Your task to perform on an android device: find snoozed emails in the gmail app Image 0: 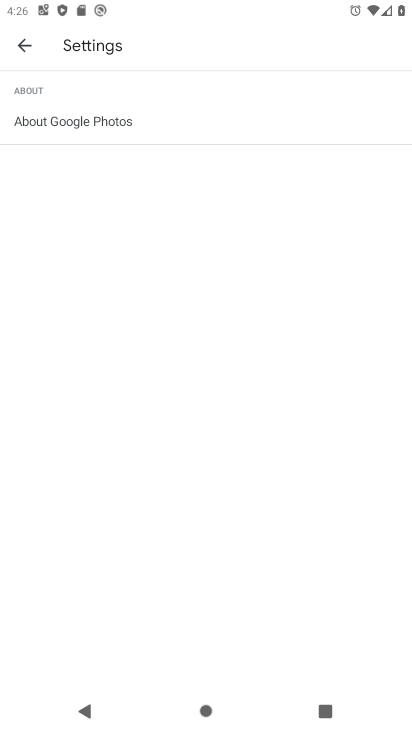
Step 0: press home button
Your task to perform on an android device: find snoozed emails in the gmail app Image 1: 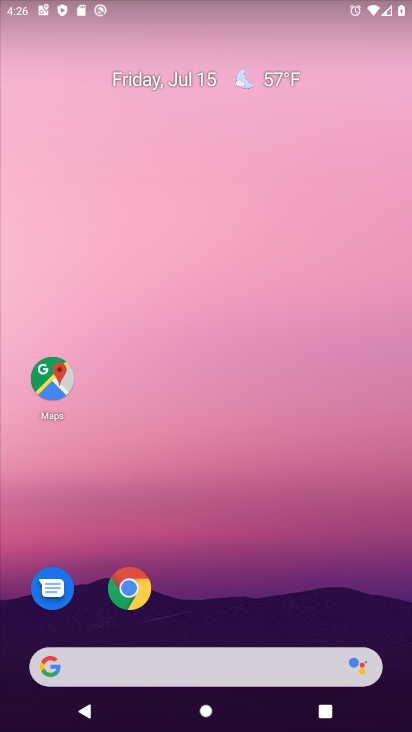
Step 1: drag from (209, 665) to (263, 110)
Your task to perform on an android device: find snoozed emails in the gmail app Image 2: 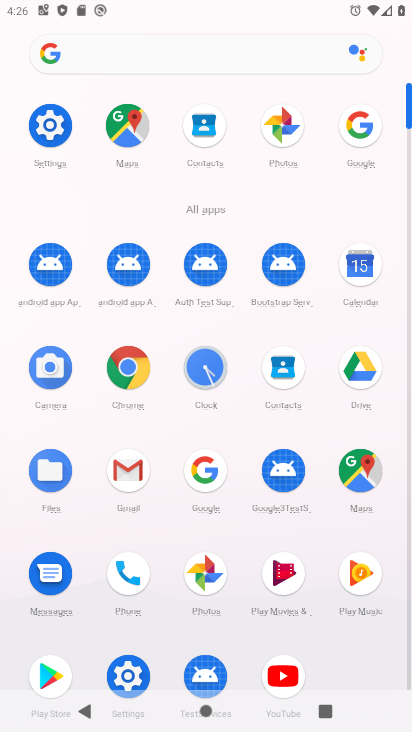
Step 2: click (129, 469)
Your task to perform on an android device: find snoozed emails in the gmail app Image 3: 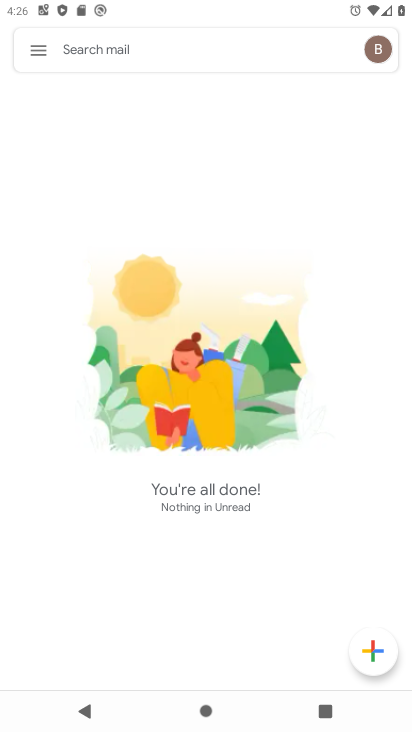
Step 3: click (40, 51)
Your task to perform on an android device: find snoozed emails in the gmail app Image 4: 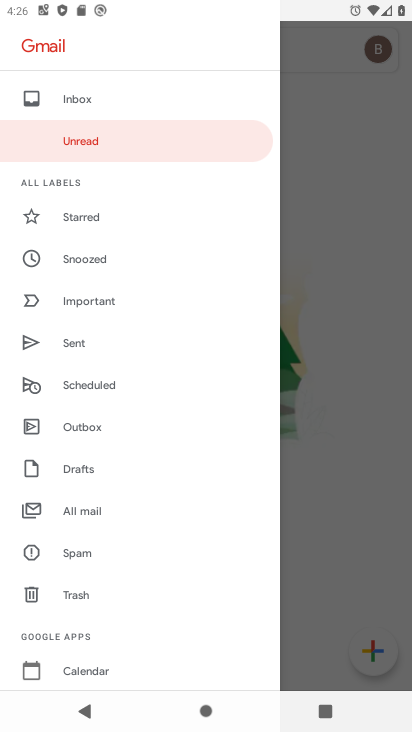
Step 4: click (72, 96)
Your task to perform on an android device: find snoozed emails in the gmail app Image 5: 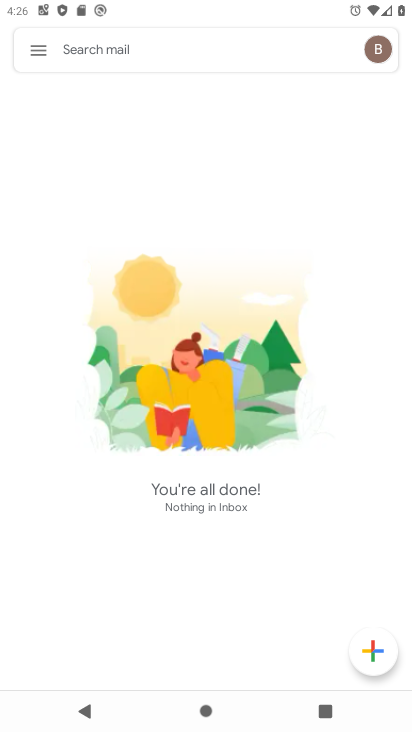
Step 5: click (38, 54)
Your task to perform on an android device: find snoozed emails in the gmail app Image 6: 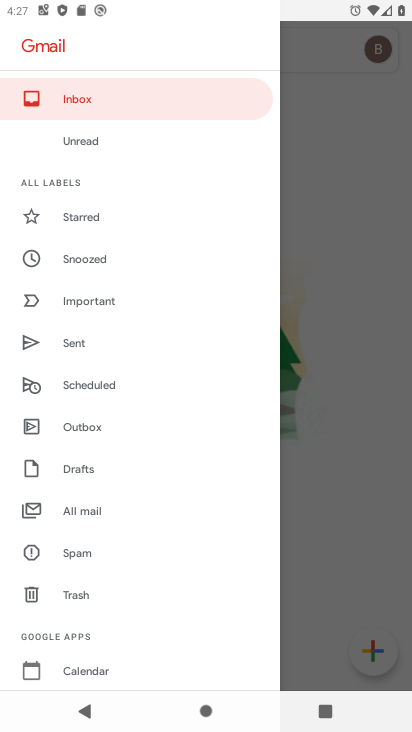
Step 6: click (89, 257)
Your task to perform on an android device: find snoozed emails in the gmail app Image 7: 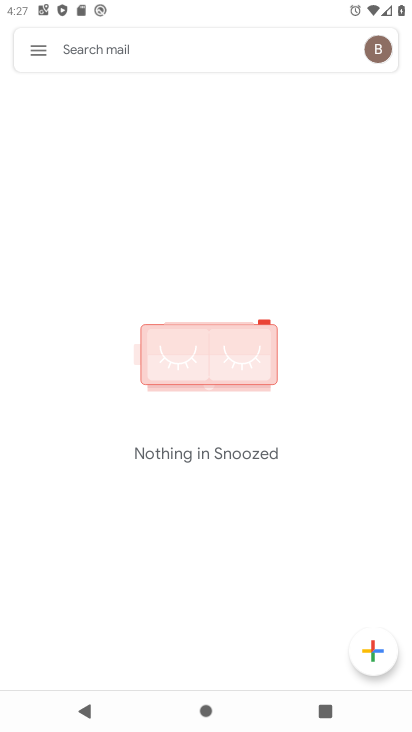
Step 7: click (41, 55)
Your task to perform on an android device: find snoozed emails in the gmail app Image 8: 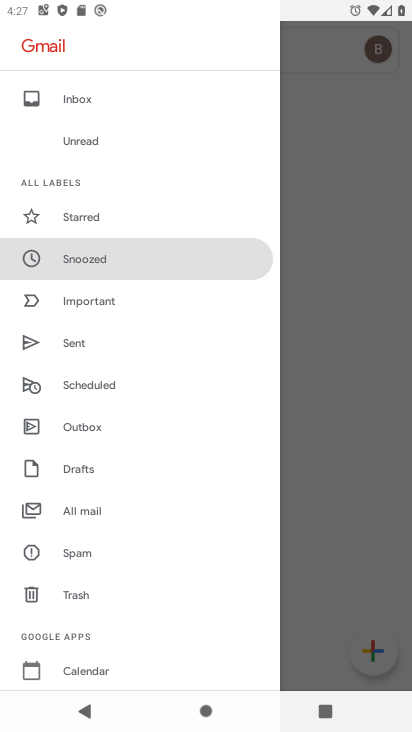
Step 8: click (72, 302)
Your task to perform on an android device: find snoozed emails in the gmail app Image 9: 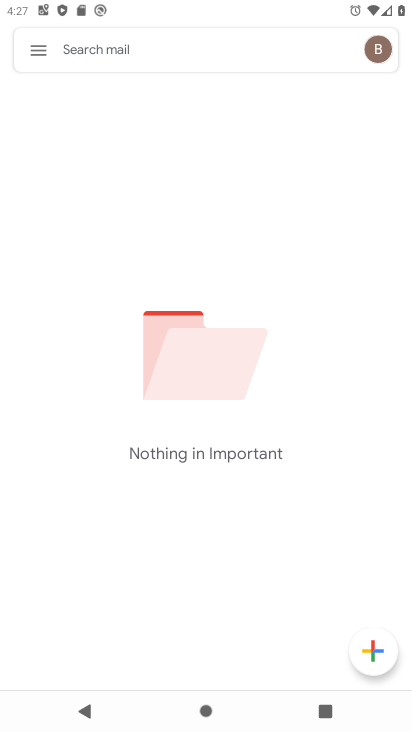
Step 9: click (36, 42)
Your task to perform on an android device: find snoozed emails in the gmail app Image 10: 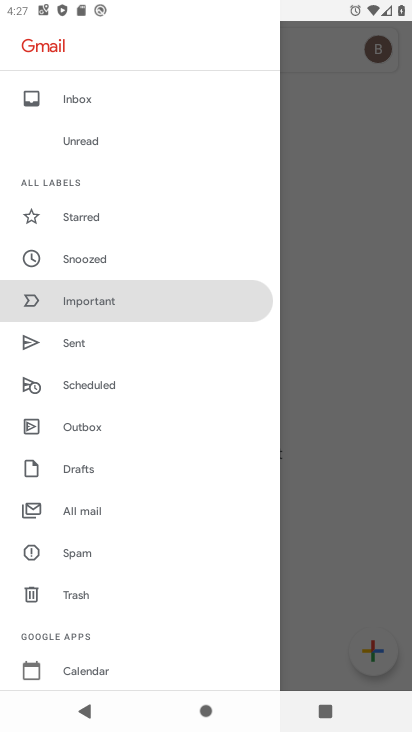
Step 10: click (76, 352)
Your task to perform on an android device: find snoozed emails in the gmail app Image 11: 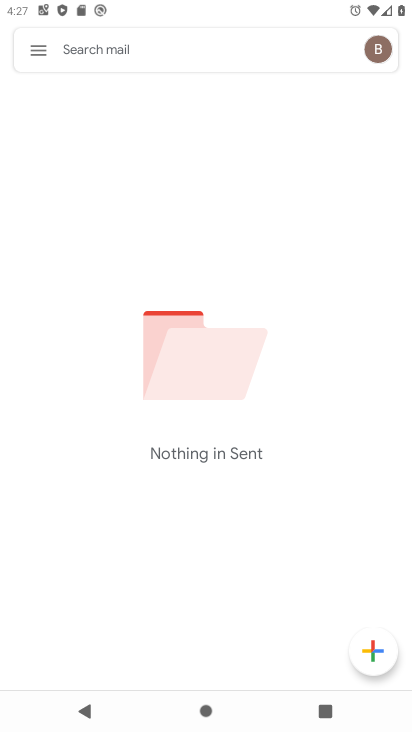
Step 11: click (40, 44)
Your task to perform on an android device: find snoozed emails in the gmail app Image 12: 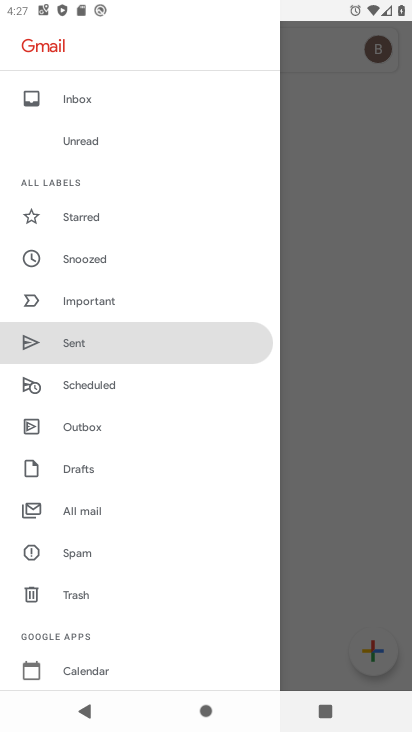
Step 12: click (88, 382)
Your task to perform on an android device: find snoozed emails in the gmail app Image 13: 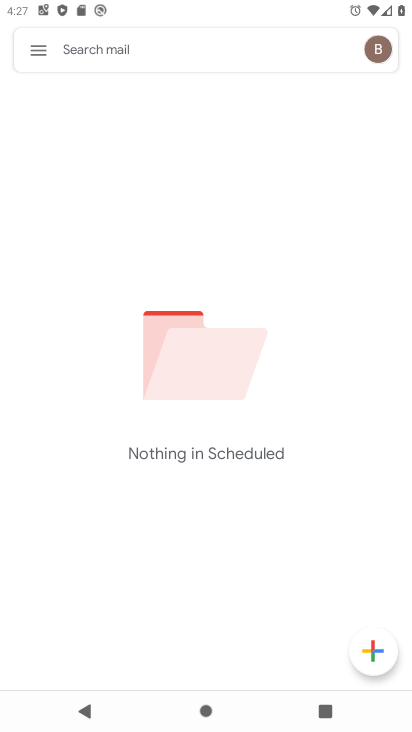
Step 13: click (40, 51)
Your task to perform on an android device: find snoozed emails in the gmail app Image 14: 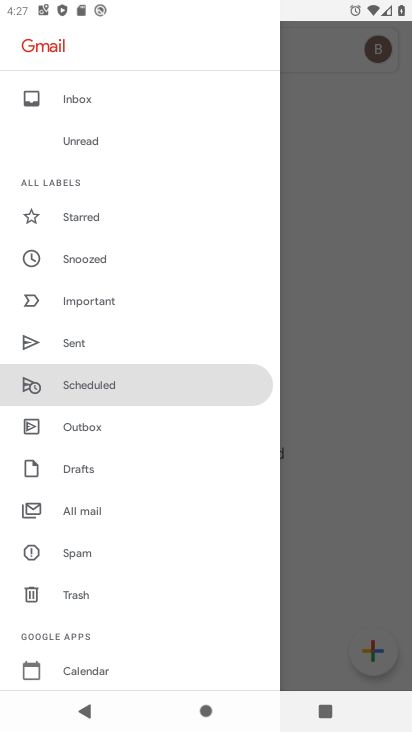
Step 14: click (90, 420)
Your task to perform on an android device: find snoozed emails in the gmail app Image 15: 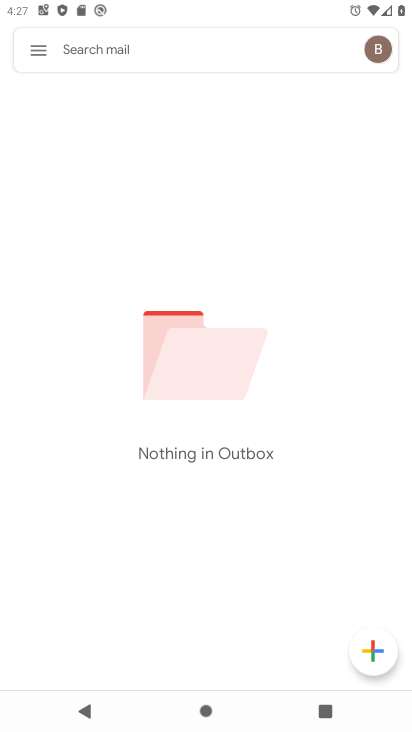
Step 15: click (39, 56)
Your task to perform on an android device: find snoozed emails in the gmail app Image 16: 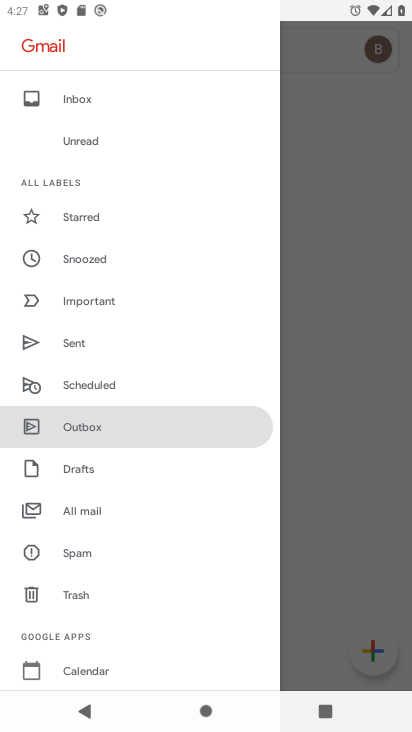
Step 16: click (80, 469)
Your task to perform on an android device: find snoozed emails in the gmail app Image 17: 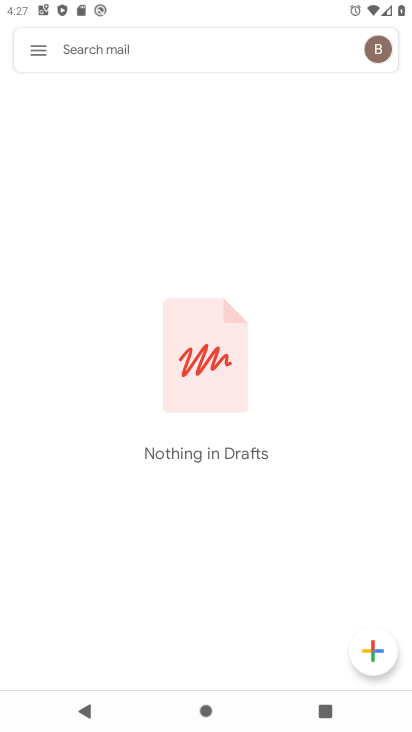
Step 17: click (40, 49)
Your task to perform on an android device: find snoozed emails in the gmail app Image 18: 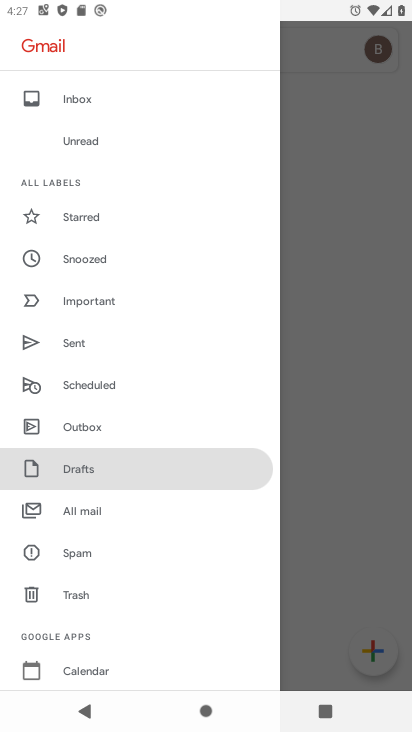
Step 18: click (91, 508)
Your task to perform on an android device: find snoozed emails in the gmail app Image 19: 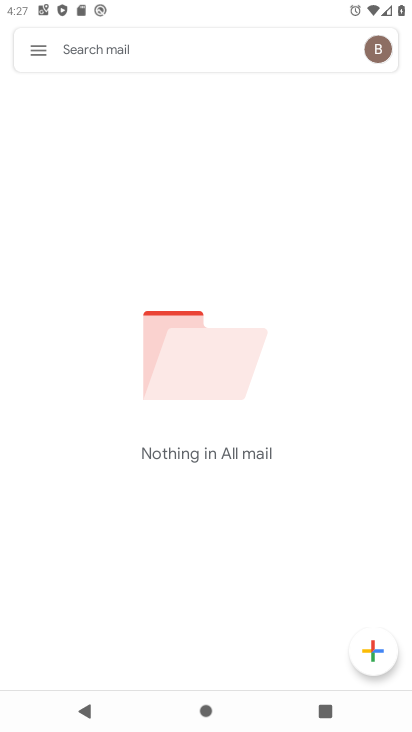
Step 19: task complete